Your task to perform on an android device: turn on javascript in the chrome app Image 0: 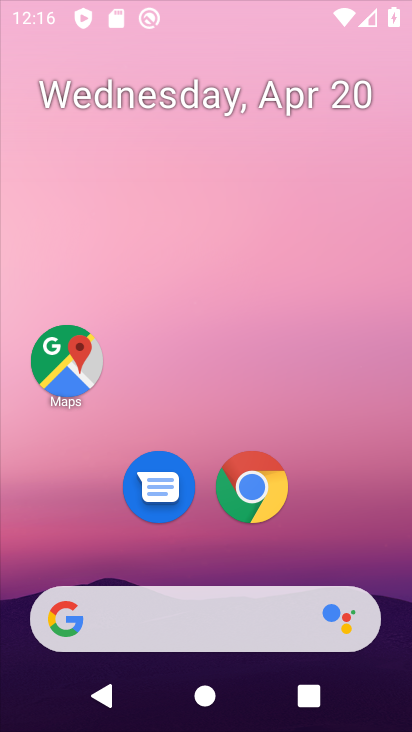
Step 0: click (255, 35)
Your task to perform on an android device: turn on javascript in the chrome app Image 1: 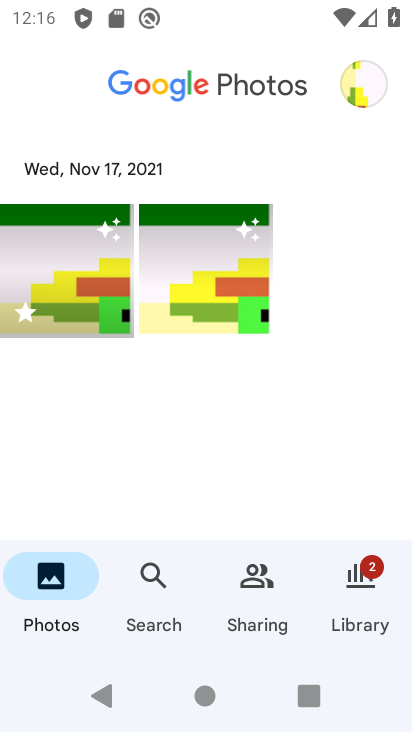
Step 1: press home button
Your task to perform on an android device: turn on javascript in the chrome app Image 2: 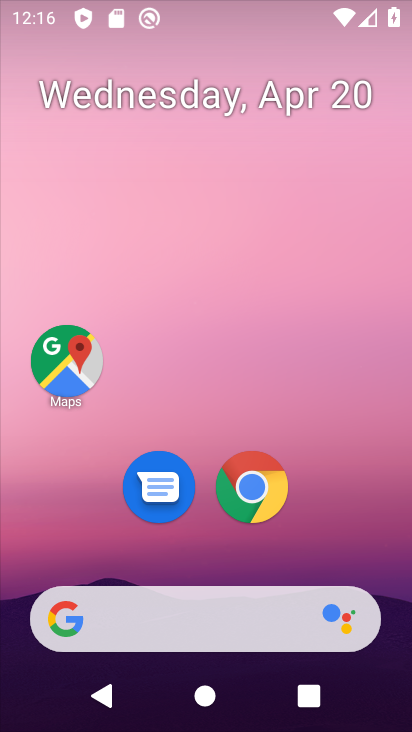
Step 2: drag from (360, 516) to (272, 54)
Your task to perform on an android device: turn on javascript in the chrome app Image 3: 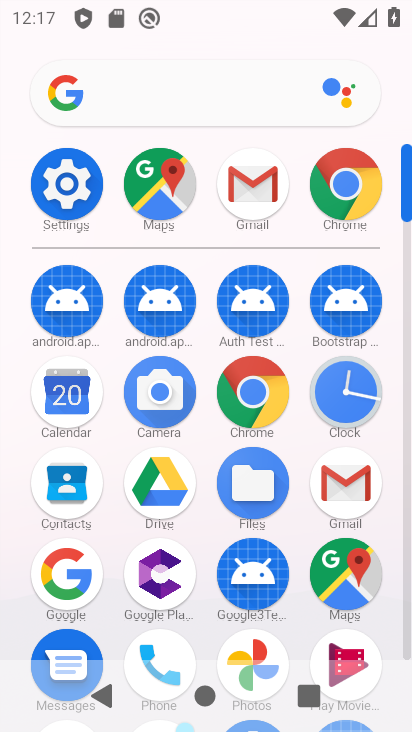
Step 3: click (364, 186)
Your task to perform on an android device: turn on javascript in the chrome app Image 4: 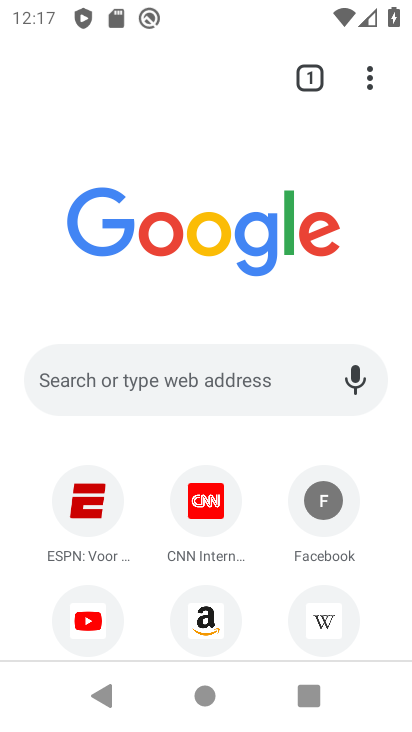
Step 4: click (369, 66)
Your task to perform on an android device: turn on javascript in the chrome app Image 5: 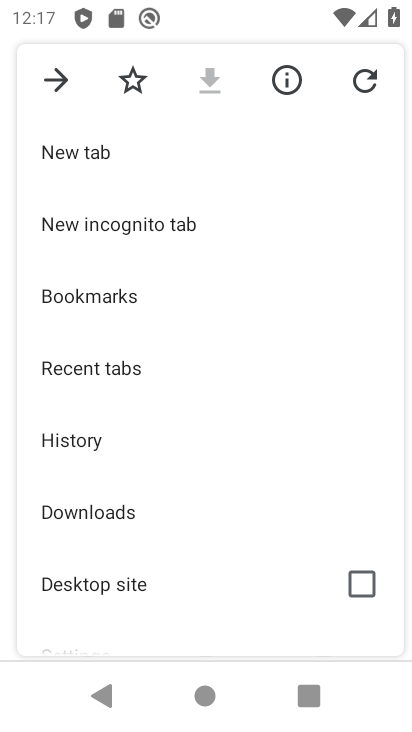
Step 5: drag from (134, 624) to (162, 337)
Your task to perform on an android device: turn on javascript in the chrome app Image 6: 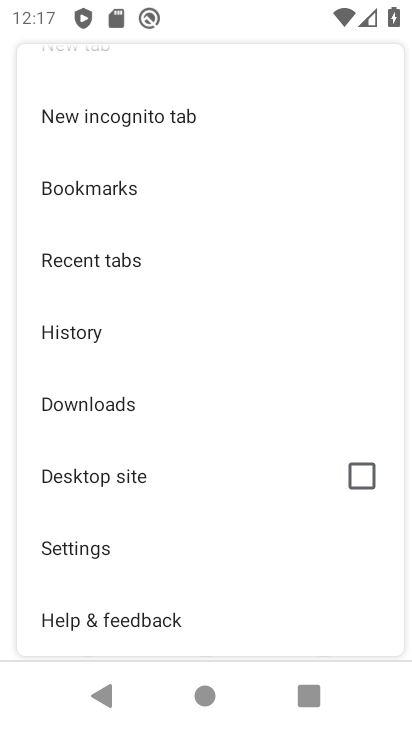
Step 6: click (128, 546)
Your task to perform on an android device: turn on javascript in the chrome app Image 7: 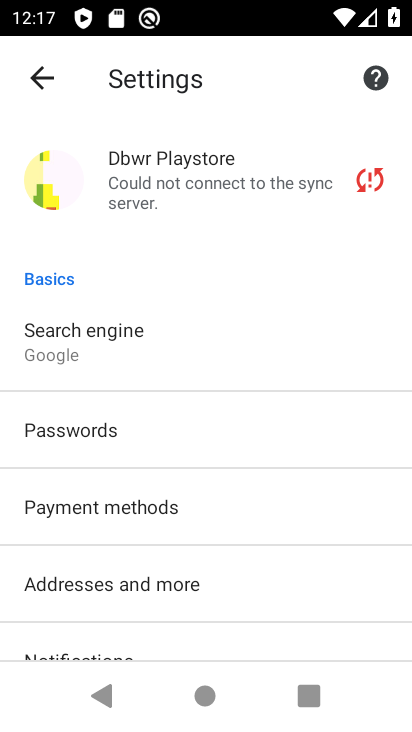
Step 7: drag from (96, 564) to (166, 191)
Your task to perform on an android device: turn on javascript in the chrome app Image 8: 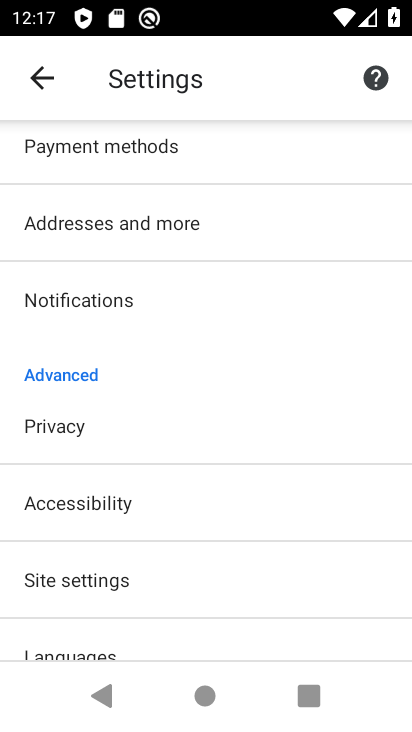
Step 8: drag from (123, 601) to (147, 444)
Your task to perform on an android device: turn on javascript in the chrome app Image 9: 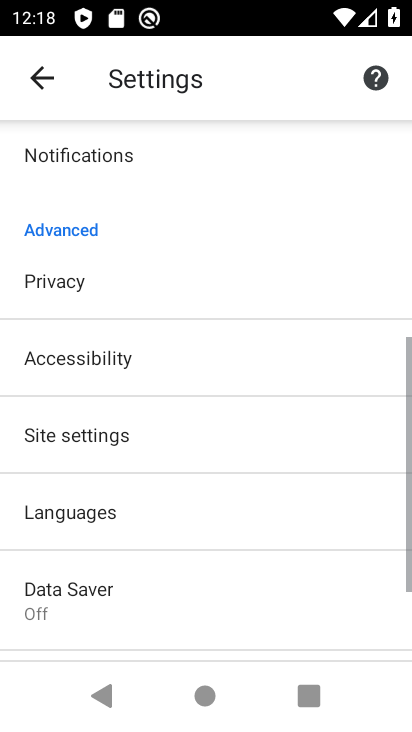
Step 9: click (157, 445)
Your task to perform on an android device: turn on javascript in the chrome app Image 10: 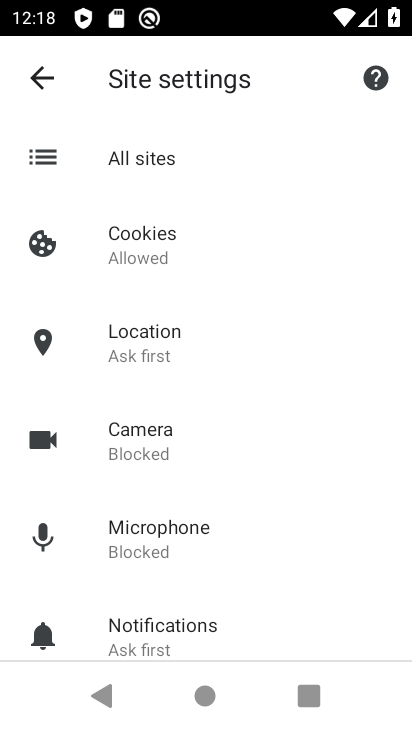
Step 10: drag from (198, 464) to (211, 194)
Your task to perform on an android device: turn on javascript in the chrome app Image 11: 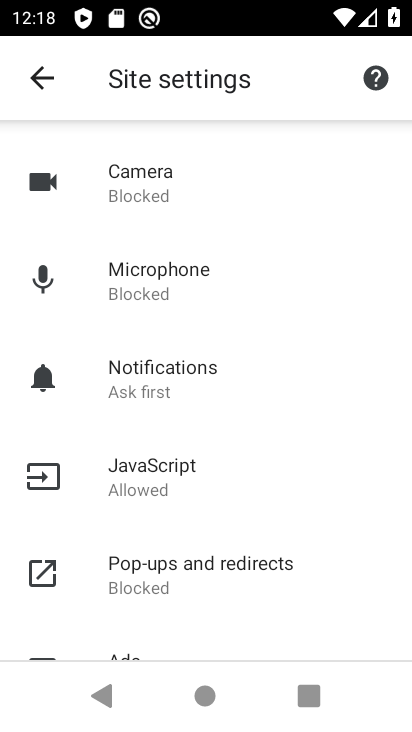
Step 11: click (170, 474)
Your task to perform on an android device: turn on javascript in the chrome app Image 12: 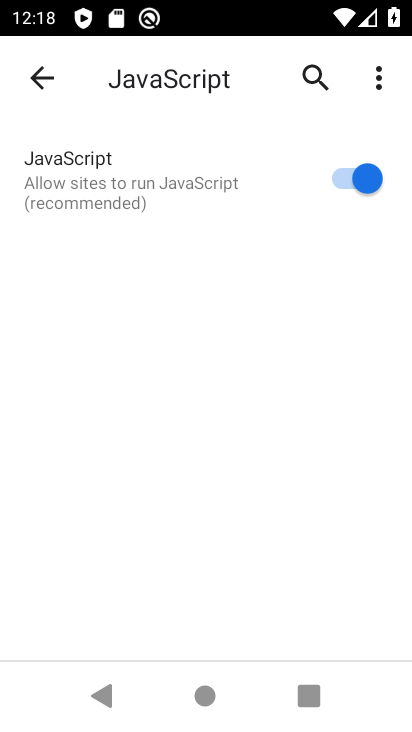
Step 12: task complete